Your task to perform on an android device: turn on notifications settings in the gmail app Image 0: 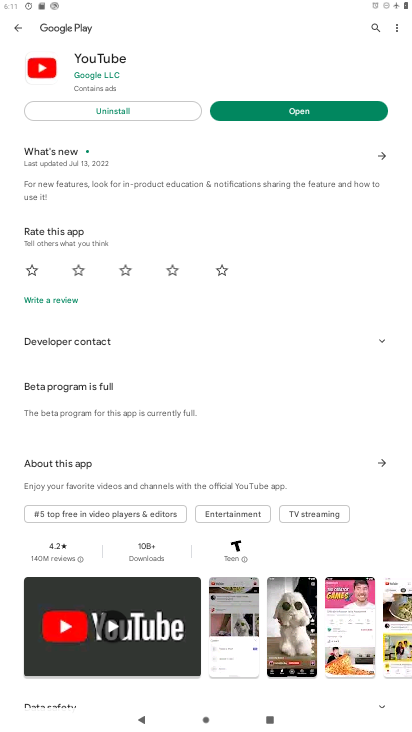
Step 0: press home button
Your task to perform on an android device: turn on notifications settings in the gmail app Image 1: 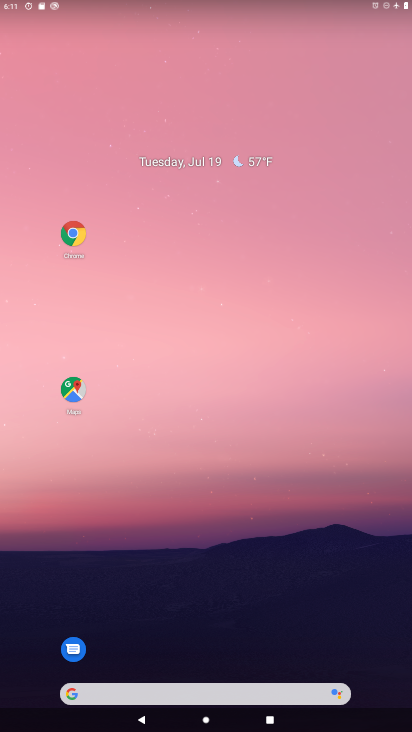
Step 1: drag from (181, 604) to (166, 74)
Your task to perform on an android device: turn on notifications settings in the gmail app Image 2: 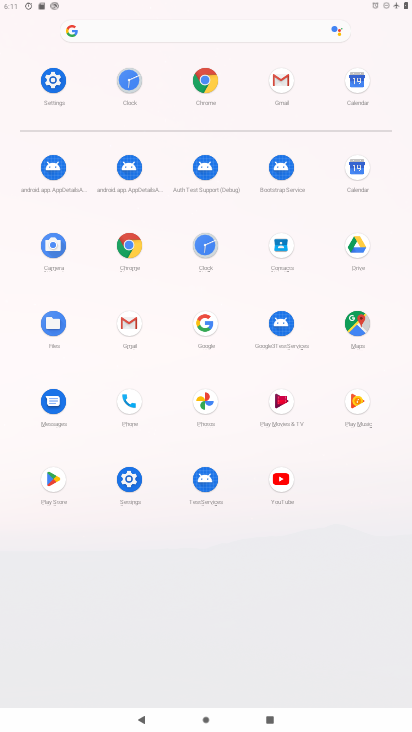
Step 2: click (134, 329)
Your task to perform on an android device: turn on notifications settings in the gmail app Image 3: 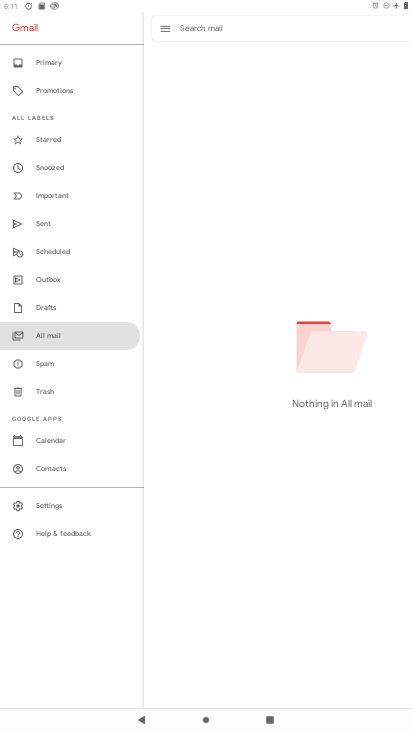
Step 3: click (57, 505)
Your task to perform on an android device: turn on notifications settings in the gmail app Image 4: 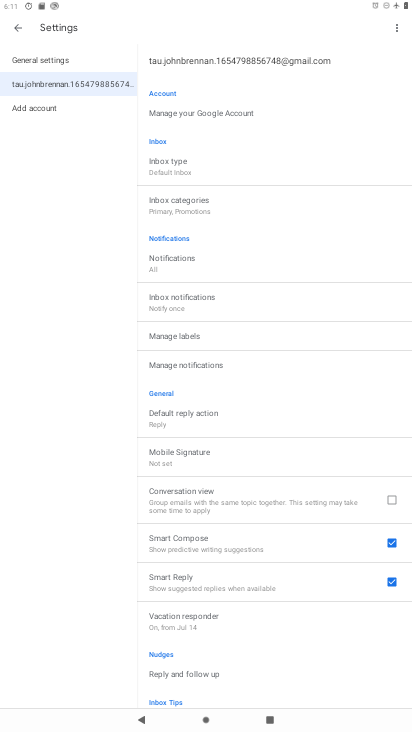
Step 4: click (191, 366)
Your task to perform on an android device: turn on notifications settings in the gmail app Image 5: 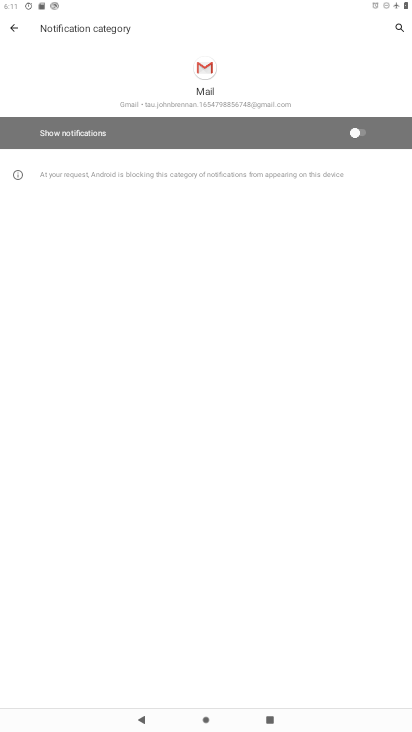
Step 5: click (361, 134)
Your task to perform on an android device: turn on notifications settings in the gmail app Image 6: 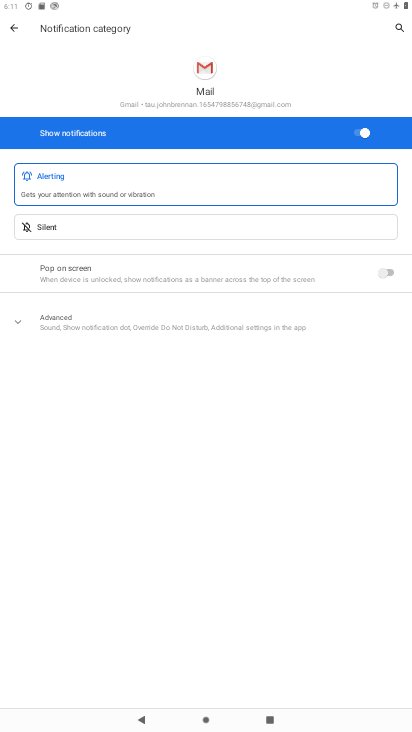
Step 6: task complete